Your task to perform on an android device: toggle improve location accuracy Image 0: 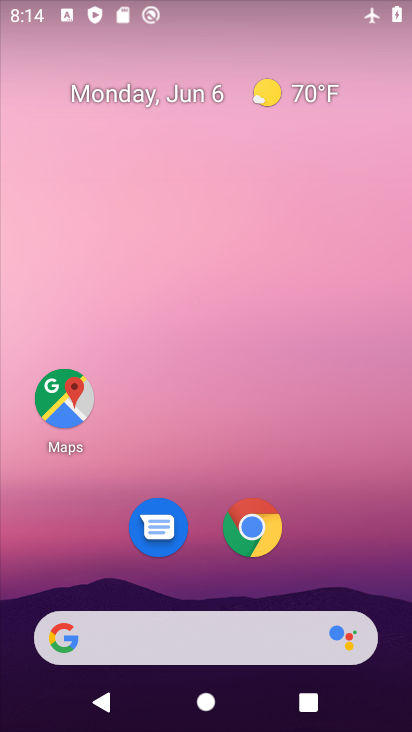
Step 0: drag from (179, 575) to (228, 227)
Your task to perform on an android device: toggle improve location accuracy Image 1: 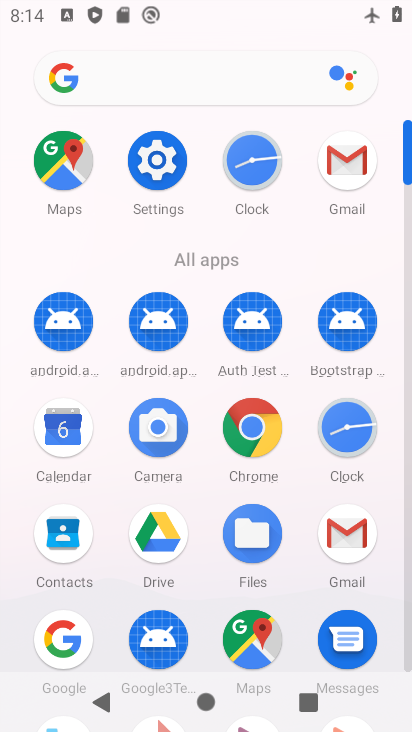
Step 1: click (170, 167)
Your task to perform on an android device: toggle improve location accuracy Image 2: 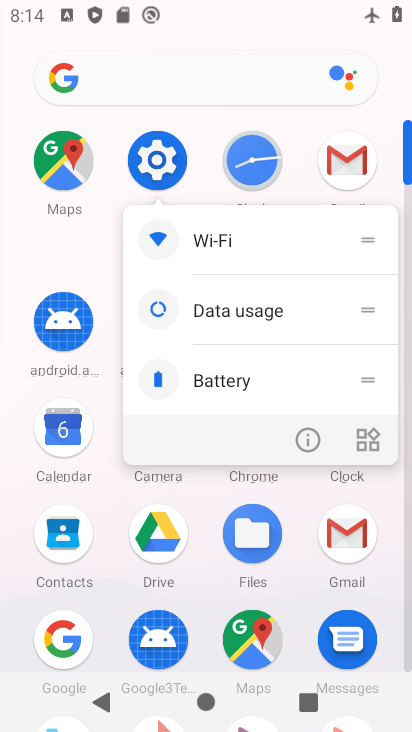
Step 2: click (169, 172)
Your task to perform on an android device: toggle improve location accuracy Image 3: 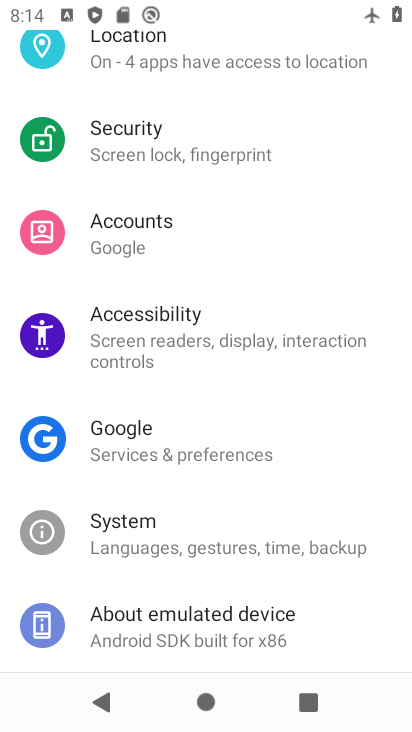
Step 3: drag from (168, 237) to (161, 624)
Your task to perform on an android device: toggle improve location accuracy Image 4: 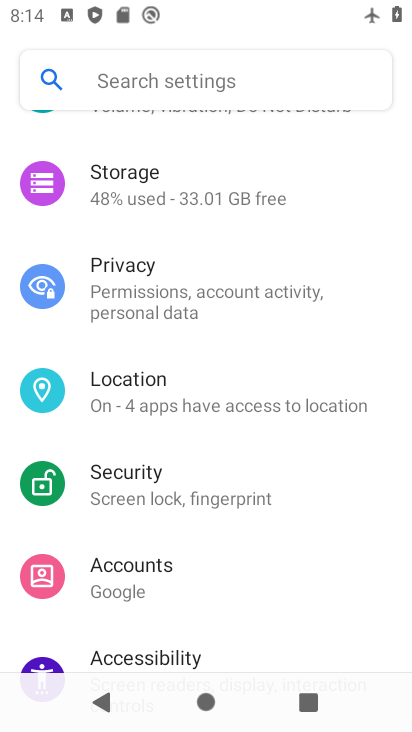
Step 4: click (198, 406)
Your task to perform on an android device: toggle improve location accuracy Image 5: 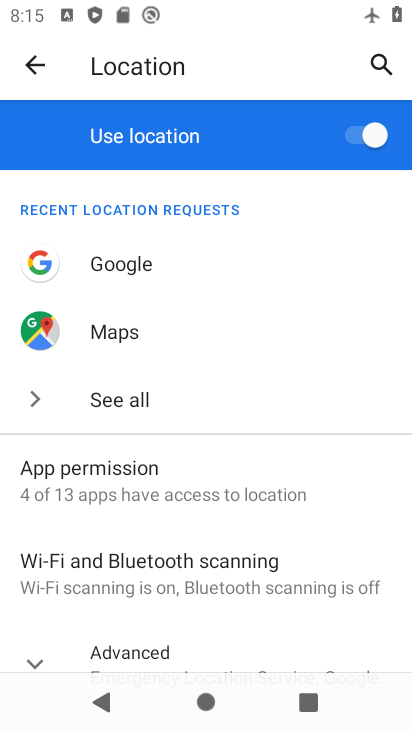
Step 5: drag from (137, 552) to (199, 259)
Your task to perform on an android device: toggle improve location accuracy Image 6: 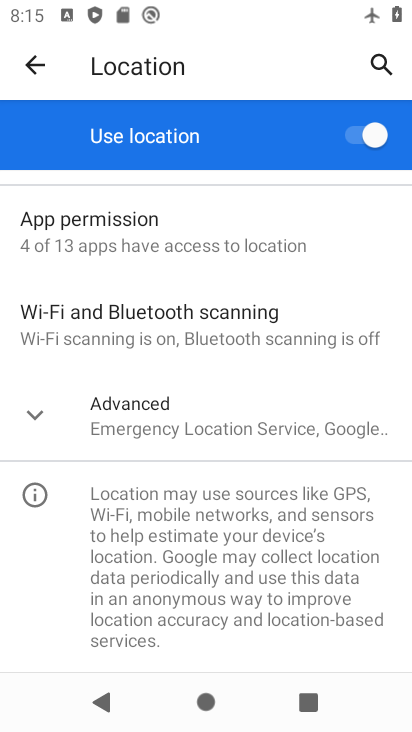
Step 6: click (189, 384)
Your task to perform on an android device: toggle improve location accuracy Image 7: 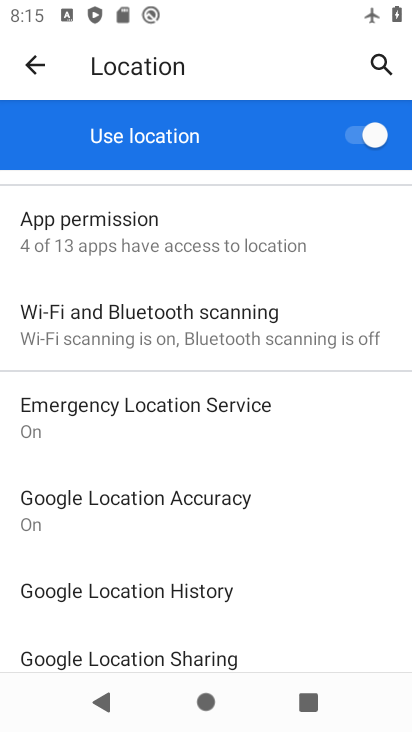
Step 7: click (191, 492)
Your task to perform on an android device: toggle improve location accuracy Image 8: 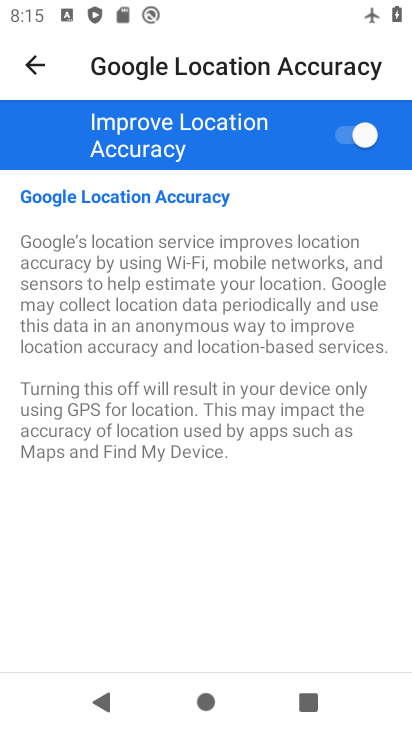
Step 8: click (326, 141)
Your task to perform on an android device: toggle improve location accuracy Image 9: 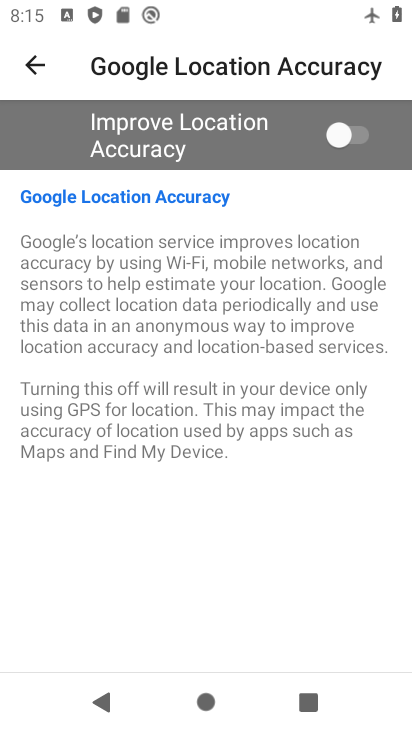
Step 9: task complete